Your task to perform on an android device: toggle translation in the chrome app Image 0: 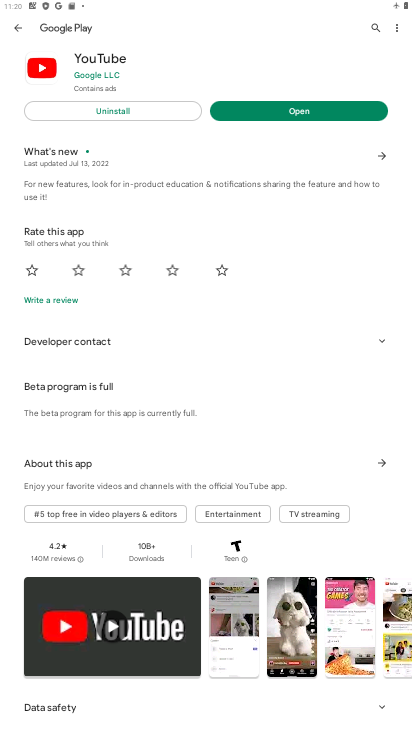
Step 0: press home button
Your task to perform on an android device: toggle translation in the chrome app Image 1: 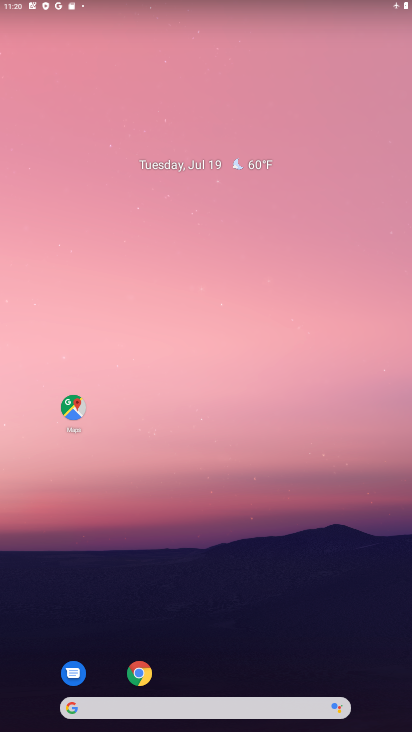
Step 1: click (143, 672)
Your task to perform on an android device: toggle translation in the chrome app Image 2: 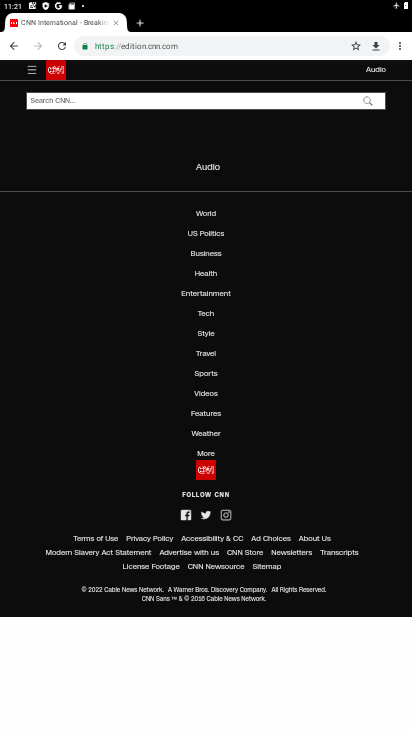
Step 2: click (398, 48)
Your task to perform on an android device: toggle translation in the chrome app Image 3: 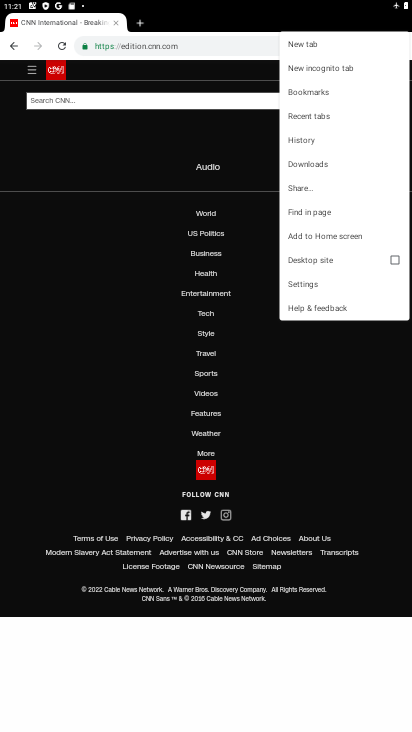
Step 3: click (306, 283)
Your task to perform on an android device: toggle translation in the chrome app Image 4: 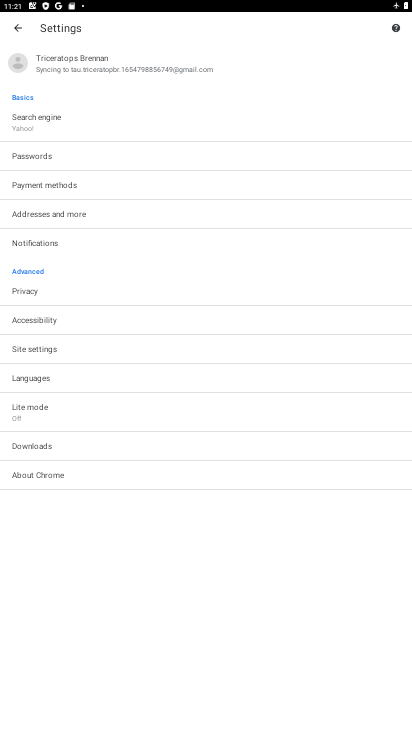
Step 4: click (27, 376)
Your task to perform on an android device: toggle translation in the chrome app Image 5: 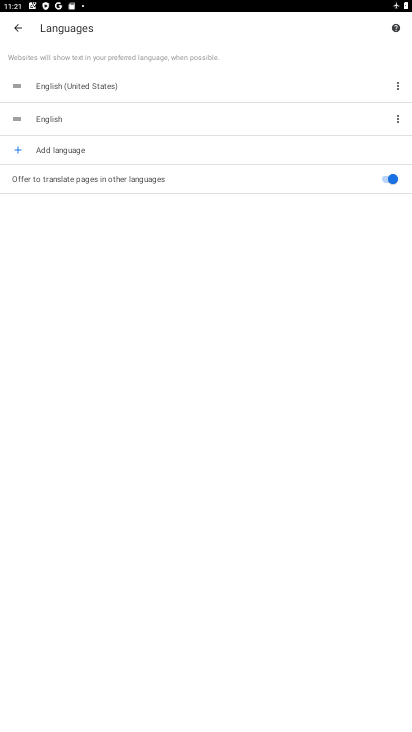
Step 5: click (380, 177)
Your task to perform on an android device: toggle translation in the chrome app Image 6: 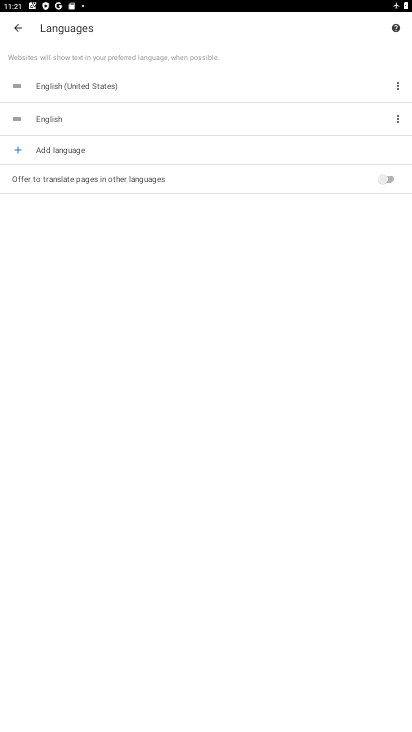
Step 6: task complete